Your task to perform on an android device: set an alarm Image 0: 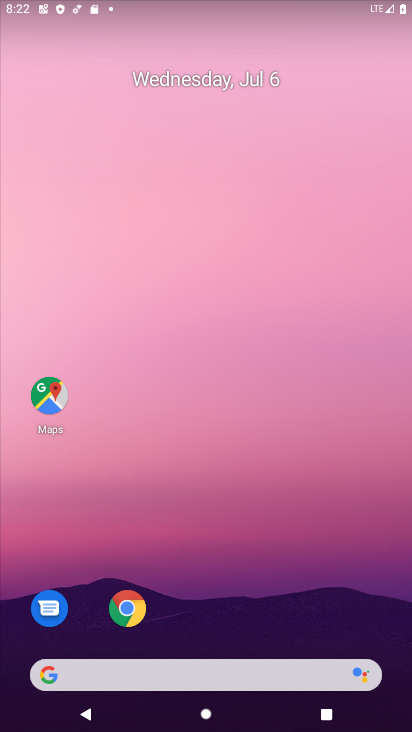
Step 0: drag from (356, 620) to (298, 103)
Your task to perform on an android device: set an alarm Image 1: 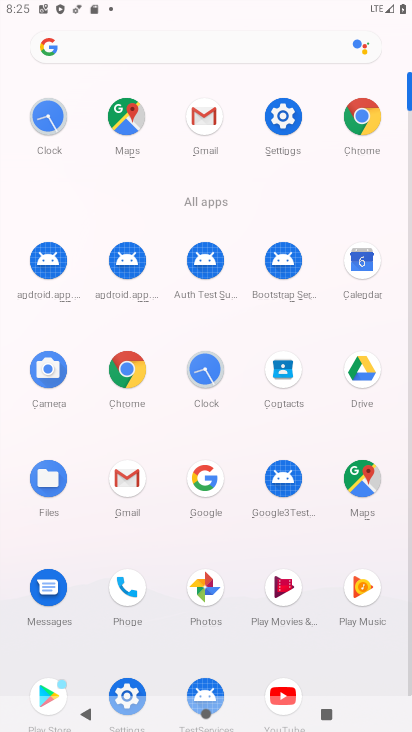
Step 1: click (211, 375)
Your task to perform on an android device: set an alarm Image 2: 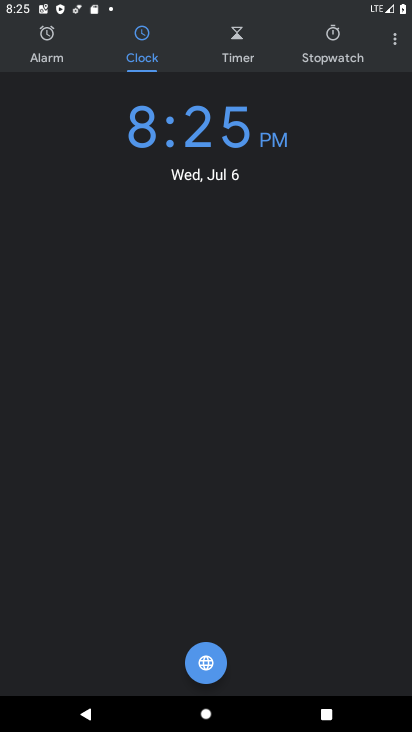
Step 2: click (395, 40)
Your task to perform on an android device: set an alarm Image 3: 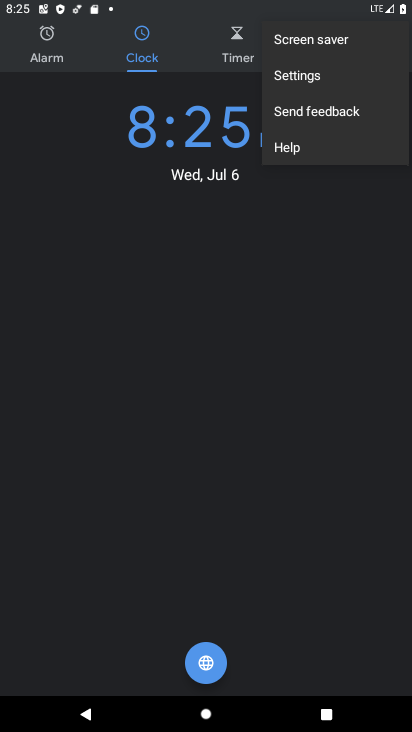
Step 3: click (51, 40)
Your task to perform on an android device: set an alarm Image 4: 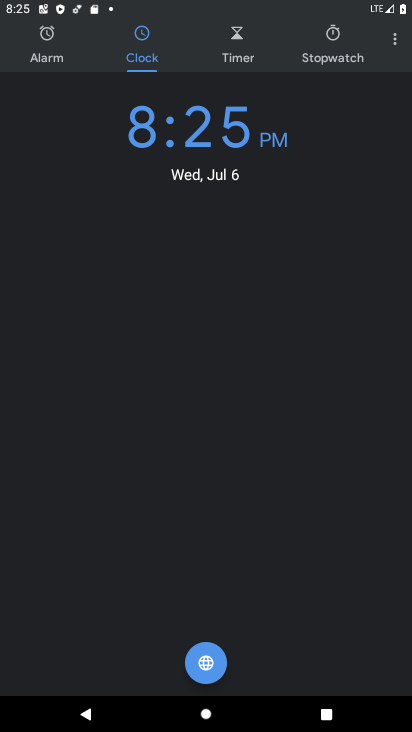
Step 4: click (51, 40)
Your task to perform on an android device: set an alarm Image 5: 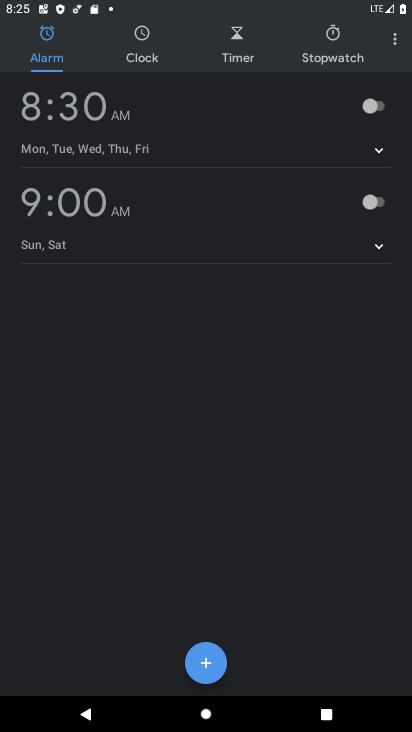
Step 5: click (378, 107)
Your task to perform on an android device: set an alarm Image 6: 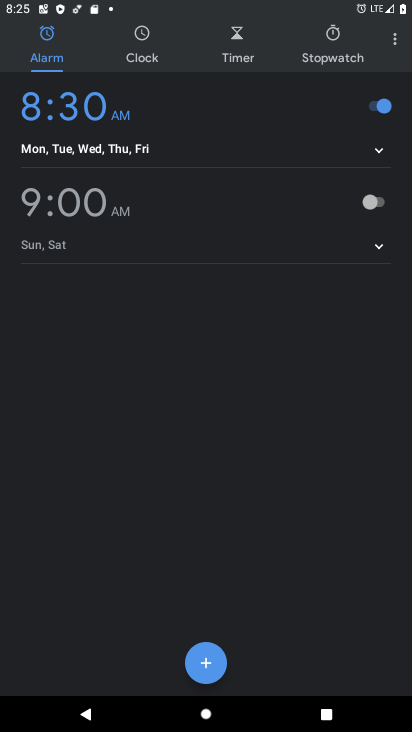
Step 6: task complete